Your task to perform on an android device: turn pop-ups on in chrome Image 0: 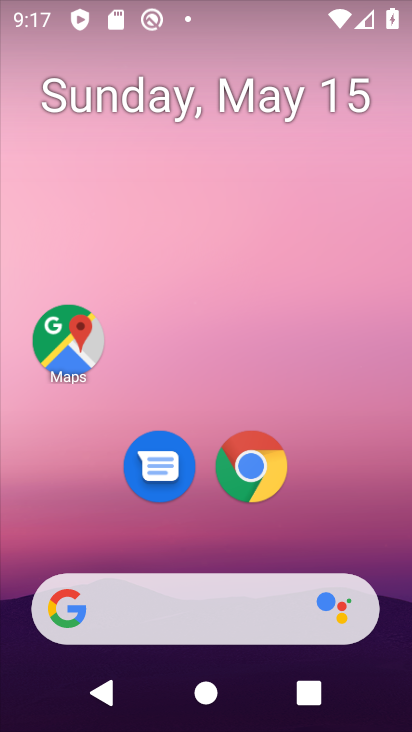
Step 0: click (262, 474)
Your task to perform on an android device: turn pop-ups on in chrome Image 1: 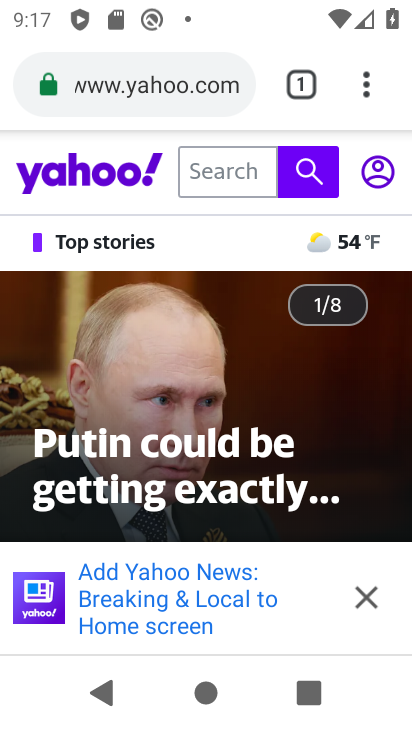
Step 1: drag from (365, 92) to (249, 505)
Your task to perform on an android device: turn pop-ups on in chrome Image 2: 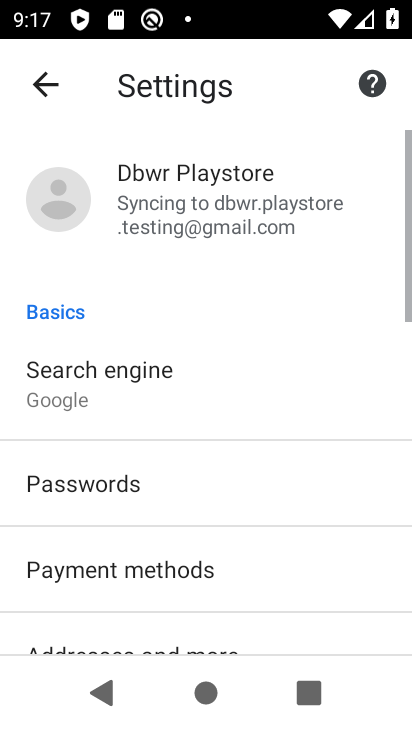
Step 2: drag from (272, 637) to (174, 134)
Your task to perform on an android device: turn pop-ups on in chrome Image 3: 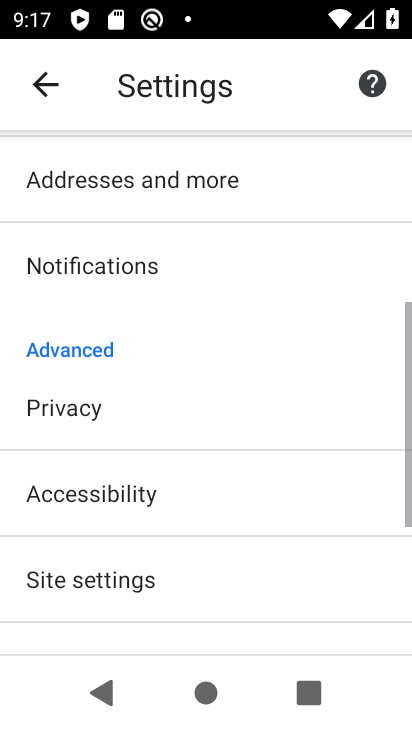
Step 3: click (172, 132)
Your task to perform on an android device: turn pop-ups on in chrome Image 4: 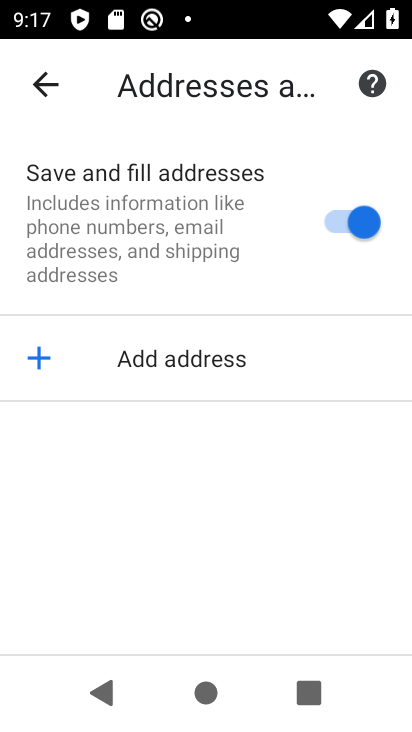
Step 4: click (47, 72)
Your task to perform on an android device: turn pop-ups on in chrome Image 5: 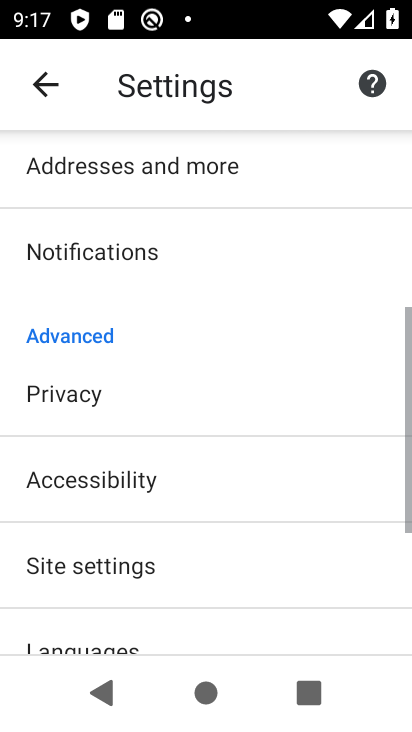
Step 5: click (139, 571)
Your task to perform on an android device: turn pop-ups on in chrome Image 6: 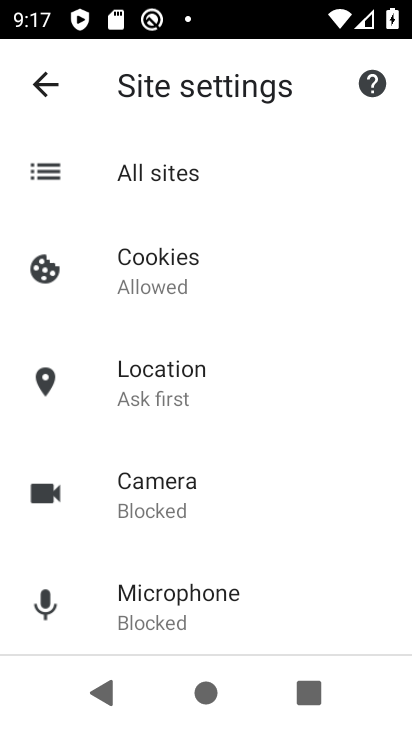
Step 6: drag from (140, 575) to (169, 101)
Your task to perform on an android device: turn pop-ups on in chrome Image 7: 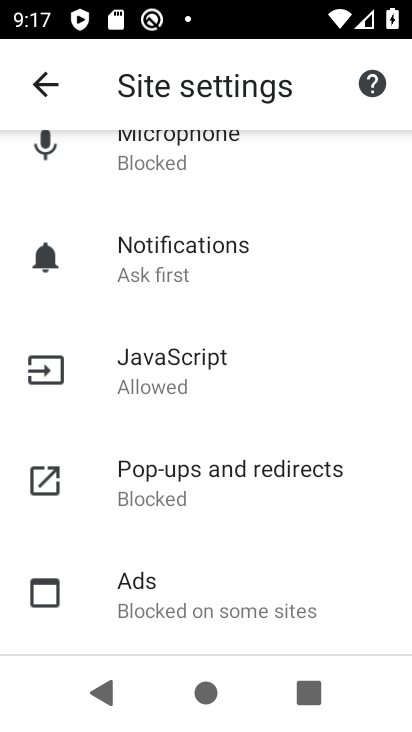
Step 7: click (204, 467)
Your task to perform on an android device: turn pop-ups on in chrome Image 8: 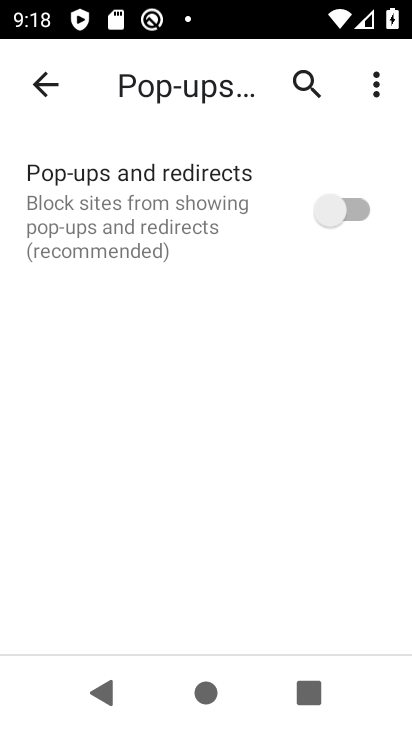
Step 8: click (344, 199)
Your task to perform on an android device: turn pop-ups on in chrome Image 9: 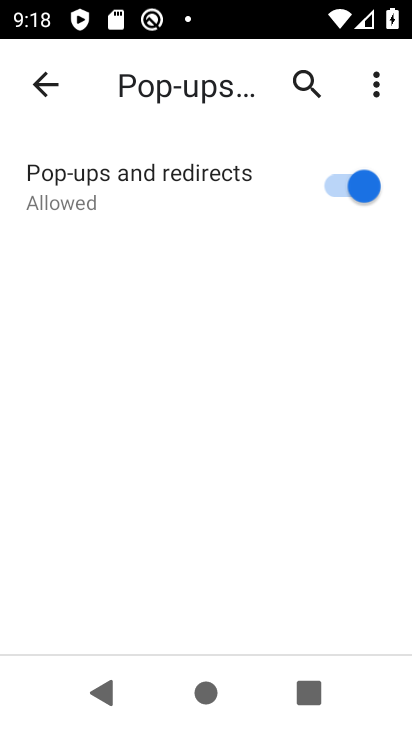
Step 9: task complete